Your task to perform on an android device: toggle improve location accuracy Image 0: 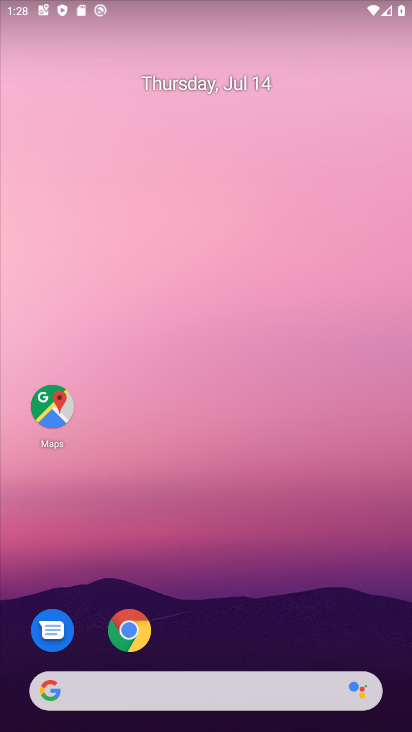
Step 0: drag from (205, 678) to (183, 99)
Your task to perform on an android device: toggle improve location accuracy Image 1: 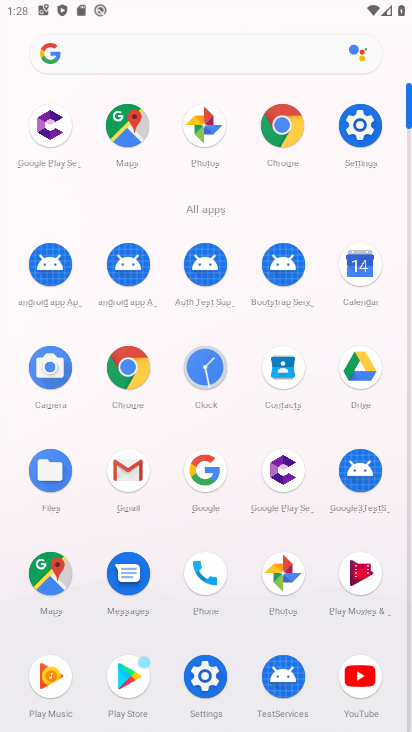
Step 1: click (352, 134)
Your task to perform on an android device: toggle improve location accuracy Image 2: 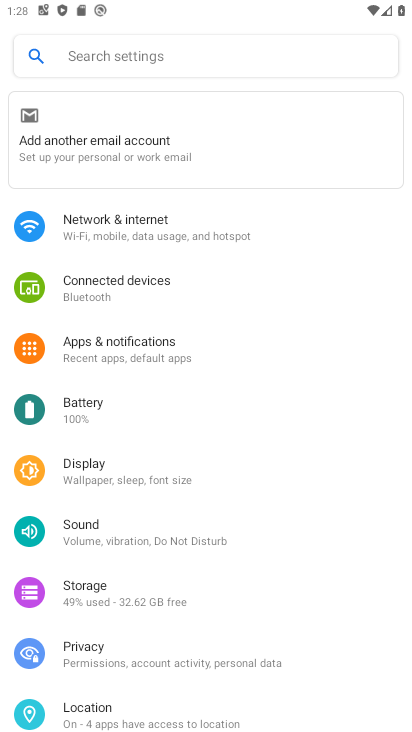
Step 2: click (100, 708)
Your task to perform on an android device: toggle improve location accuracy Image 3: 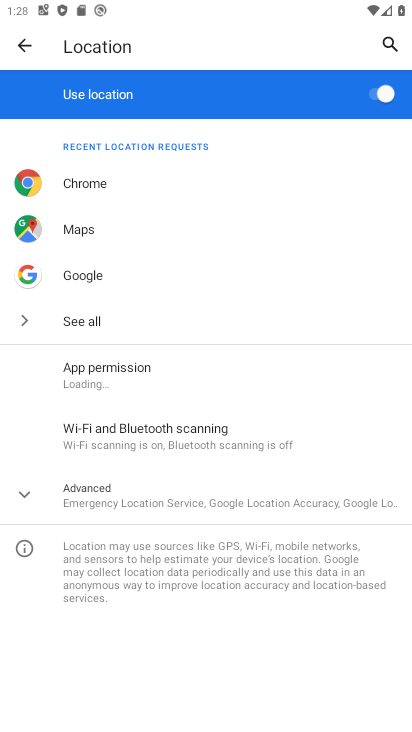
Step 3: click (140, 496)
Your task to perform on an android device: toggle improve location accuracy Image 4: 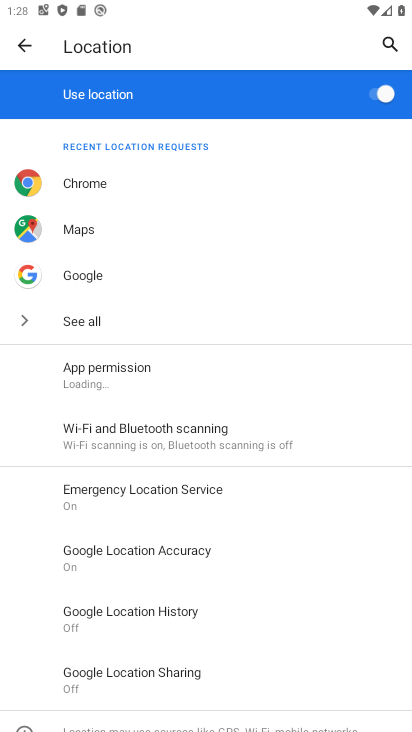
Step 4: click (181, 561)
Your task to perform on an android device: toggle improve location accuracy Image 5: 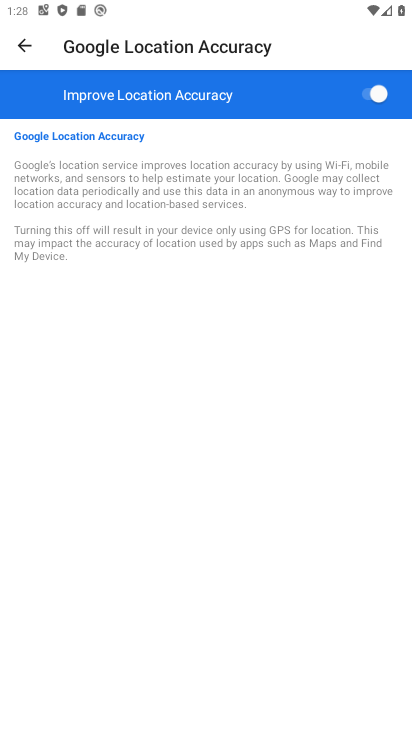
Step 5: click (366, 100)
Your task to perform on an android device: toggle improve location accuracy Image 6: 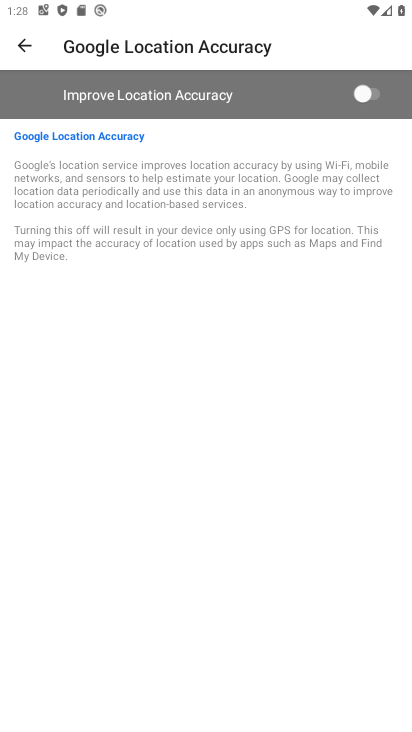
Step 6: task complete